Your task to perform on an android device: Open Youtube and go to "Your channel" Image 0: 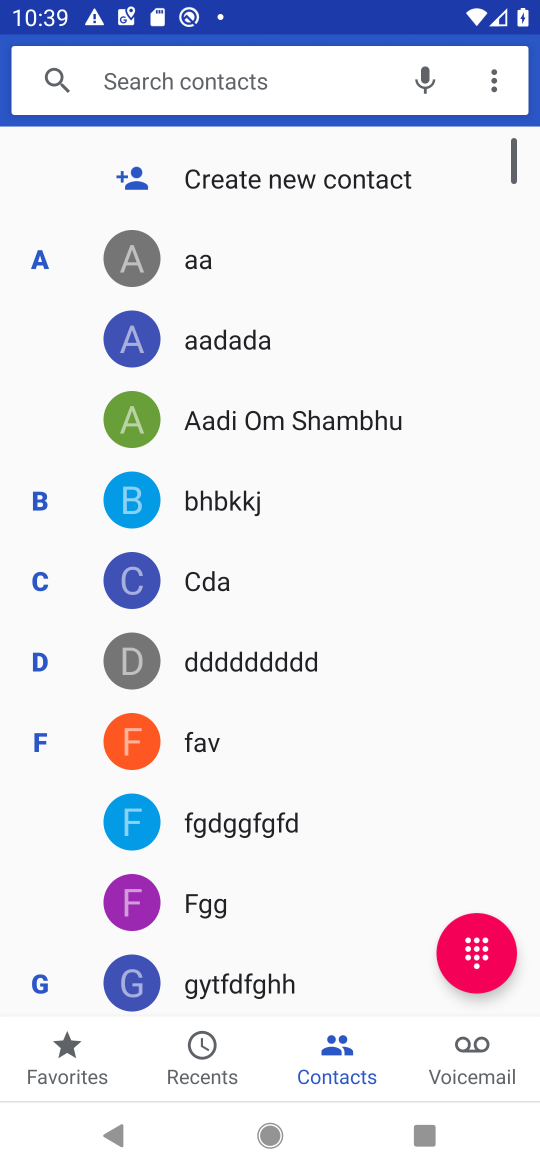
Step 0: press home button
Your task to perform on an android device: Open Youtube and go to "Your channel" Image 1: 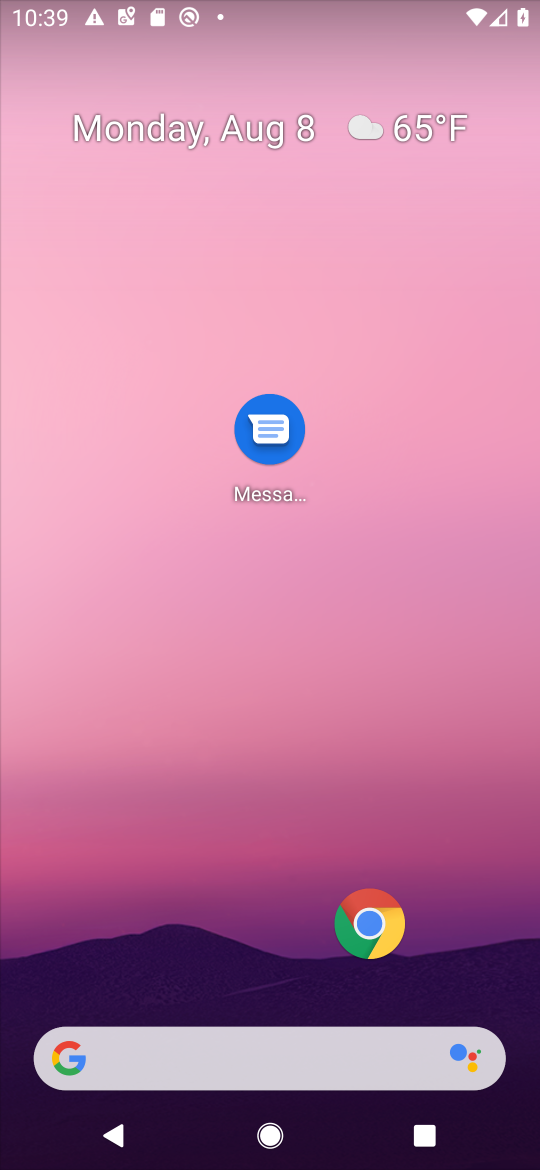
Step 1: task complete